Your task to perform on an android device: all mails in gmail Image 0: 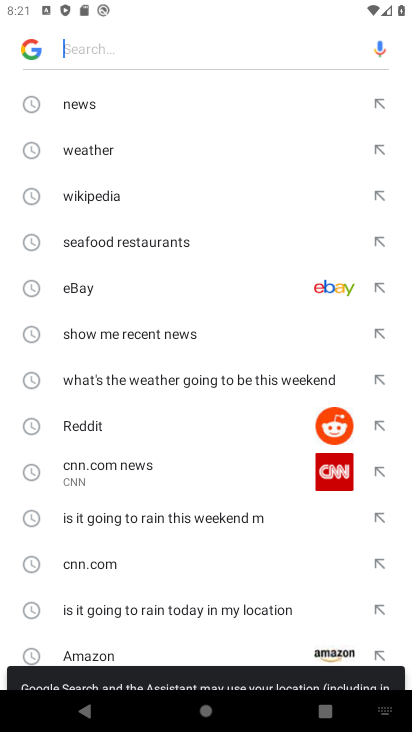
Step 0: press home button
Your task to perform on an android device: all mails in gmail Image 1: 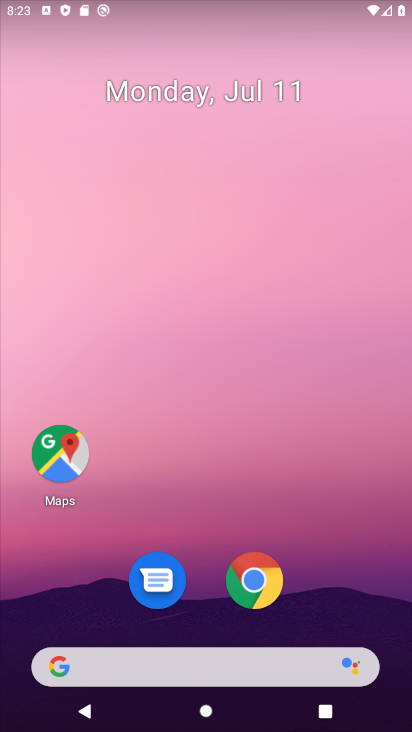
Step 1: drag from (376, 630) to (209, 17)
Your task to perform on an android device: all mails in gmail Image 2: 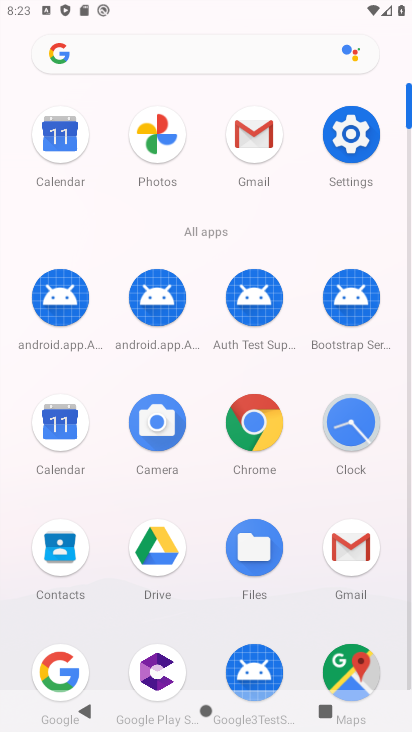
Step 2: click (257, 157)
Your task to perform on an android device: all mails in gmail Image 3: 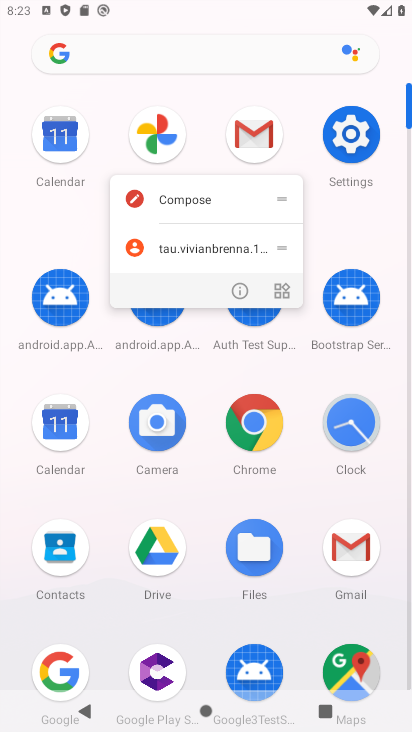
Step 3: click (257, 158)
Your task to perform on an android device: all mails in gmail Image 4: 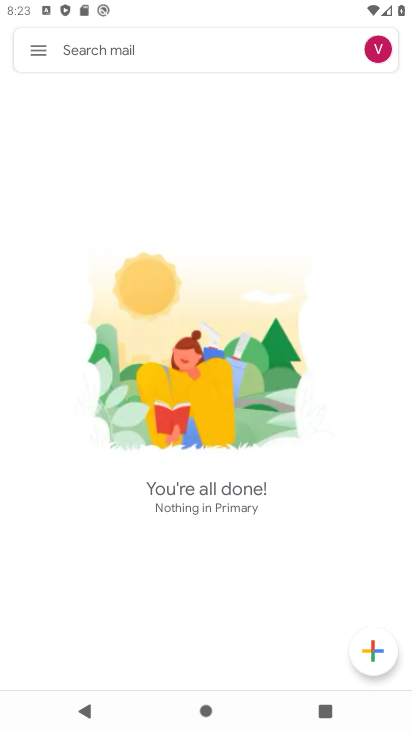
Step 4: click (26, 40)
Your task to perform on an android device: all mails in gmail Image 5: 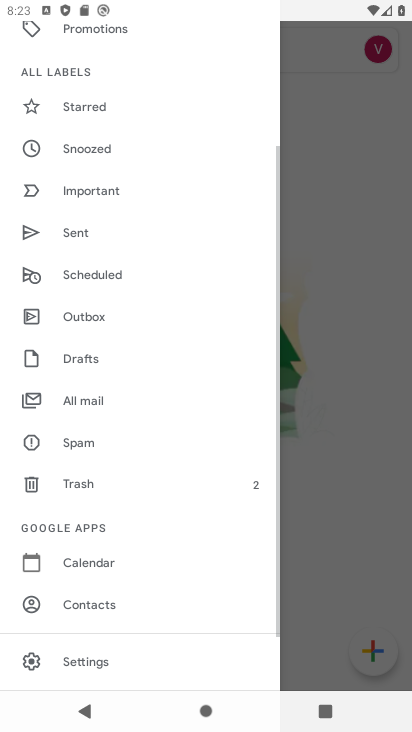
Step 5: click (87, 398)
Your task to perform on an android device: all mails in gmail Image 6: 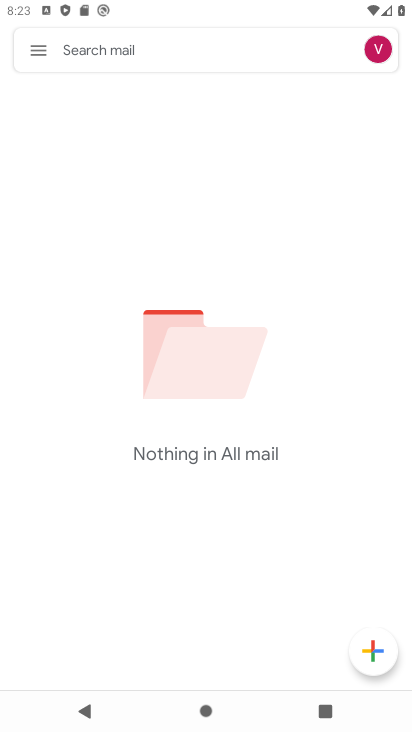
Step 6: task complete